Your task to perform on an android device: visit the assistant section in the google photos Image 0: 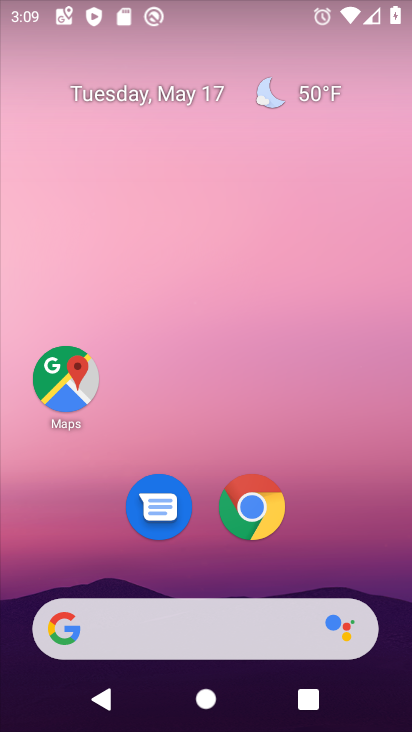
Step 0: drag from (352, 455) to (213, 26)
Your task to perform on an android device: visit the assistant section in the google photos Image 1: 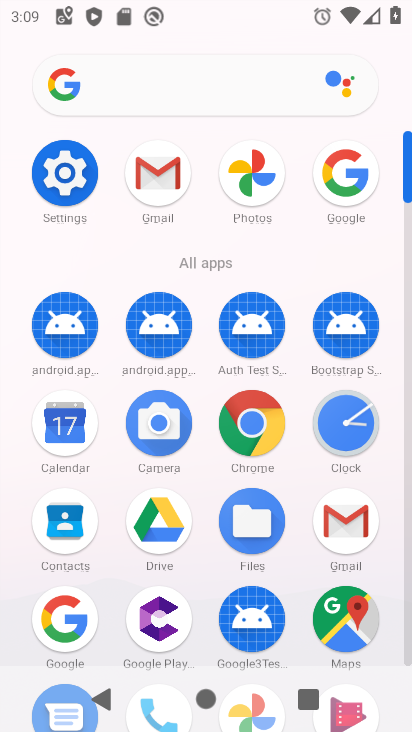
Step 1: click (267, 182)
Your task to perform on an android device: visit the assistant section in the google photos Image 2: 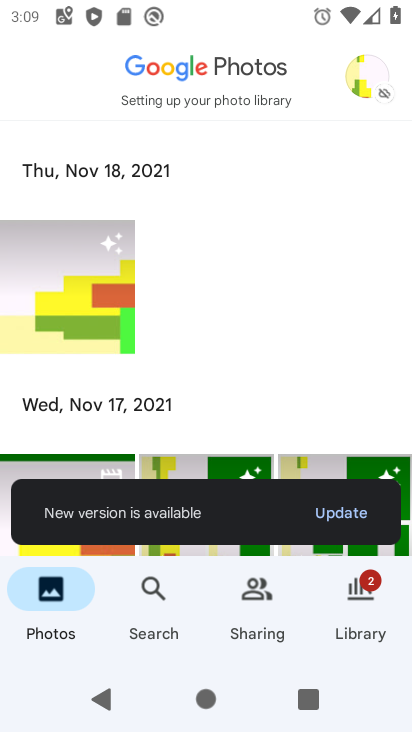
Step 2: click (155, 592)
Your task to perform on an android device: visit the assistant section in the google photos Image 3: 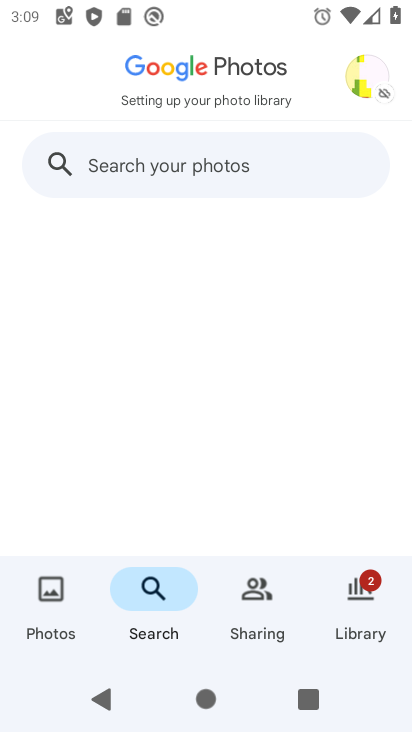
Step 3: click (156, 161)
Your task to perform on an android device: visit the assistant section in the google photos Image 4: 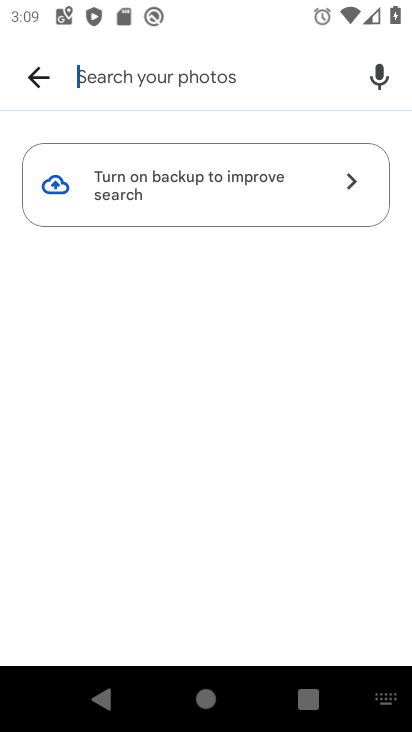
Step 4: type "assistant"
Your task to perform on an android device: visit the assistant section in the google photos Image 5: 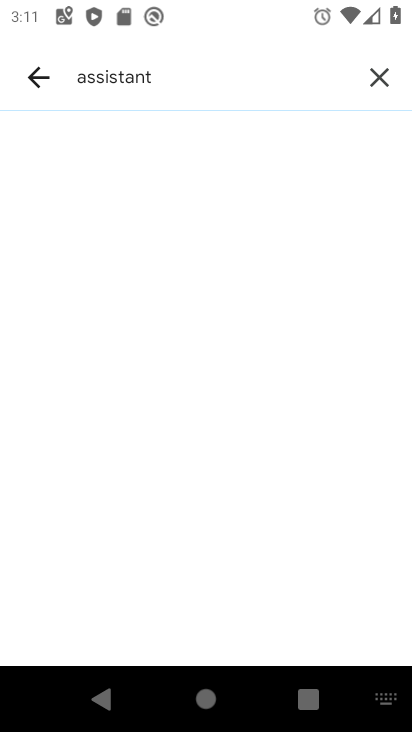
Step 5: task complete